Your task to perform on an android device: delete location history Image 0: 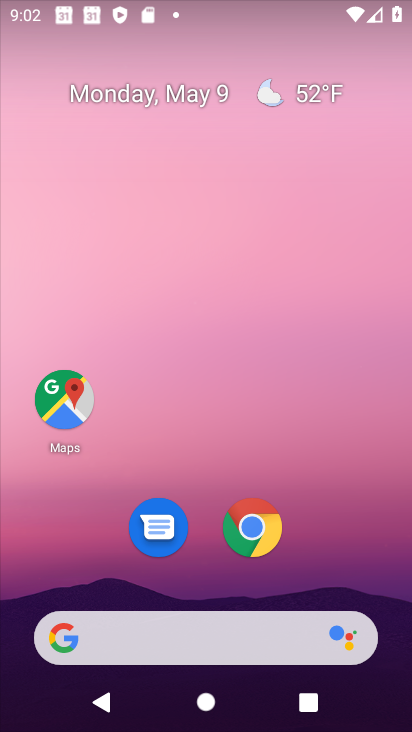
Step 0: press home button
Your task to perform on an android device: delete location history Image 1: 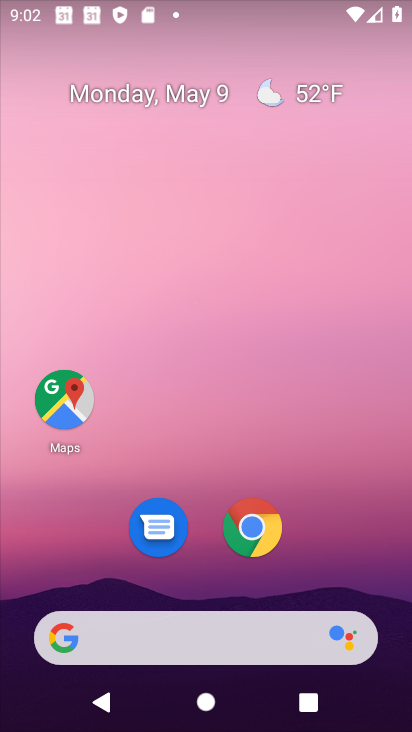
Step 1: drag from (308, 561) to (322, 228)
Your task to perform on an android device: delete location history Image 2: 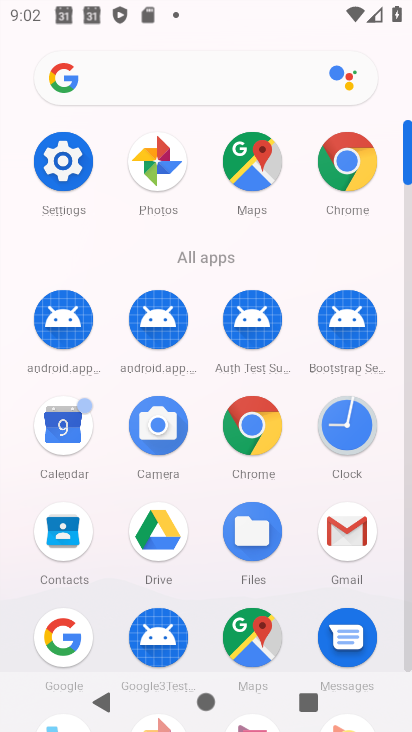
Step 2: click (75, 159)
Your task to perform on an android device: delete location history Image 3: 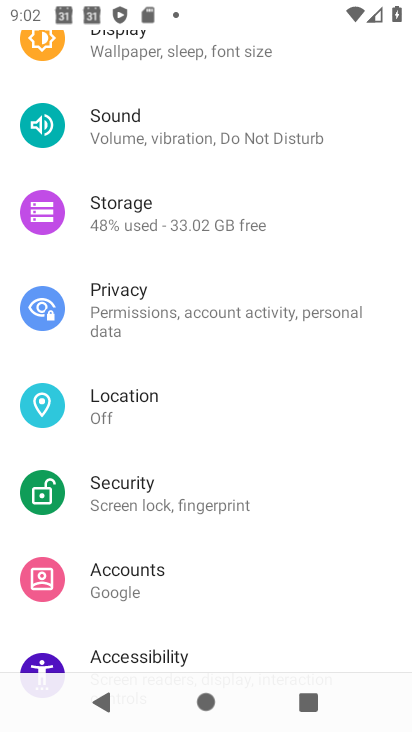
Step 3: click (80, 397)
Your task to perform on an android device: delete location history Image 4: 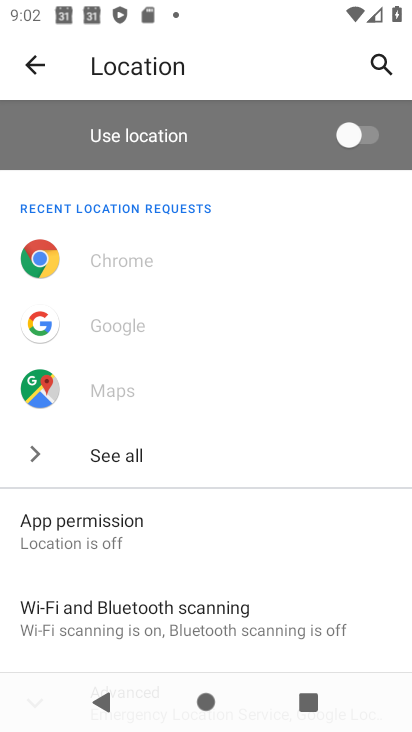
Step 4: drag from (222, 511) to (262, 286)
Your task to perform on an android device: delete location history Image 5: 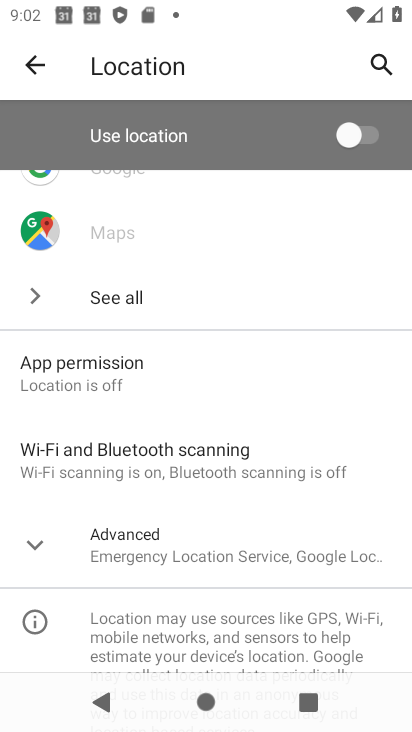
Step 5: click (192, 535)
Your task to perform on an android device: delete location history Image 6: 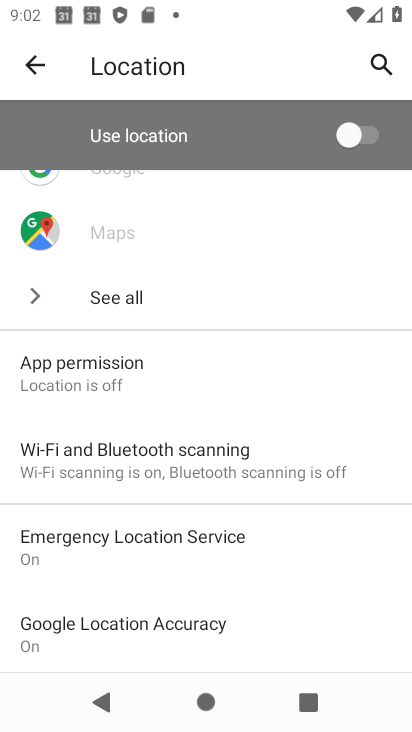
Step 6: drag from (232, 590) to (283, 274)
Your task to perform on an android device: delete location history Image 7: 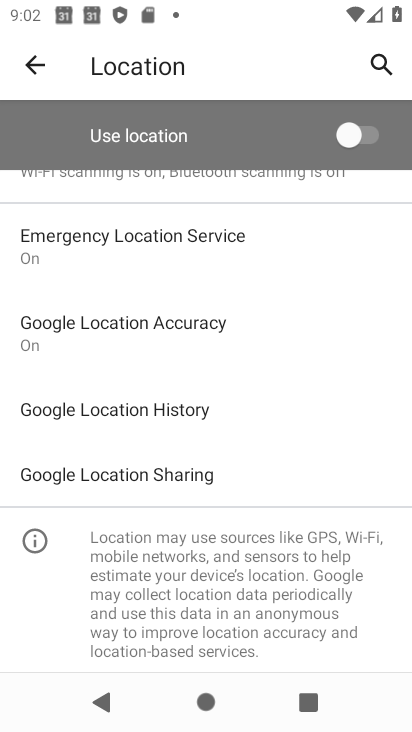
Step 7: click (197, 411)
Your task to perform on an android device: delete location history Image 8: 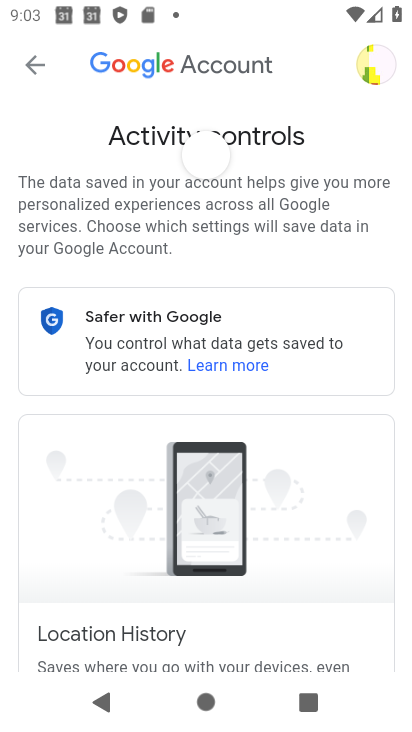
Step 8: drag from (241, 636) to (269, 255)
Your task to perform on an android device: delete location history Image 9: 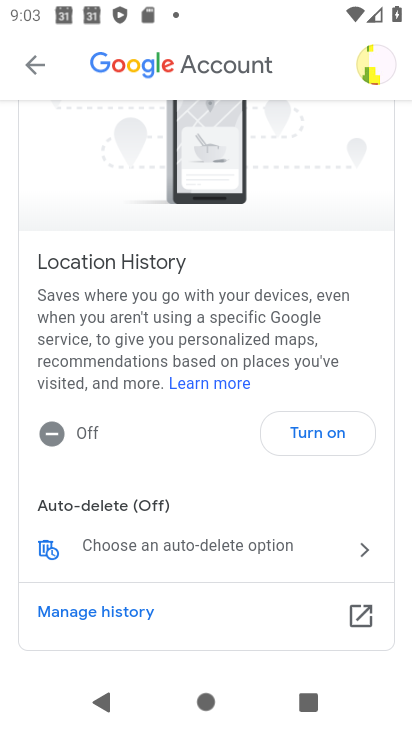
Step 9: drag from (214, 594) to (237, 275)
Your task to perform on an android device: delete location history Image 10: 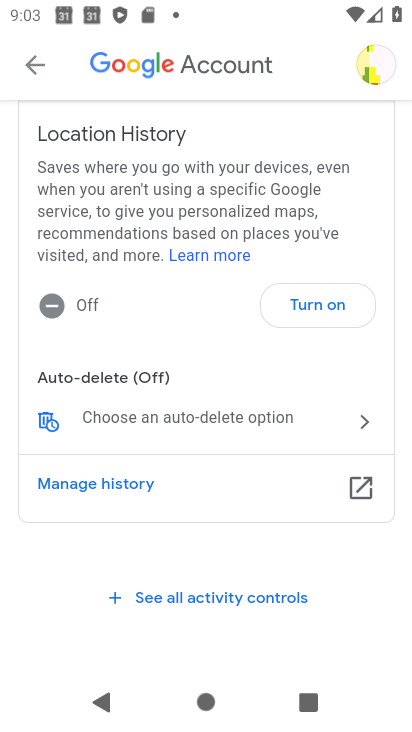
Step 10: click (115, 476)
Your task to perform on an android device: delete location history Image 11: 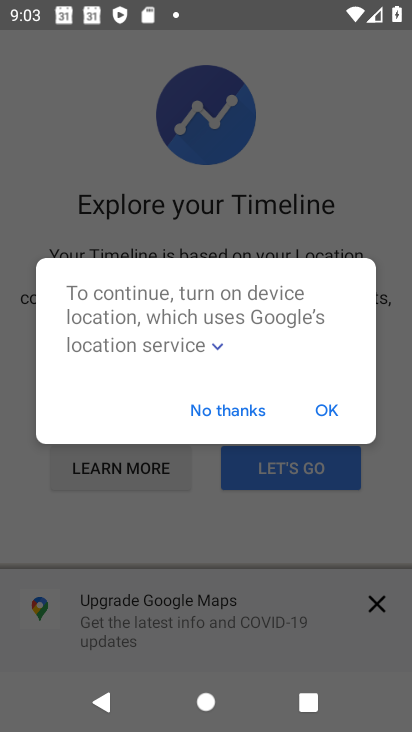
Step 11: click (380, 612)
Your task to perform on an android device: delete location history Image 12: 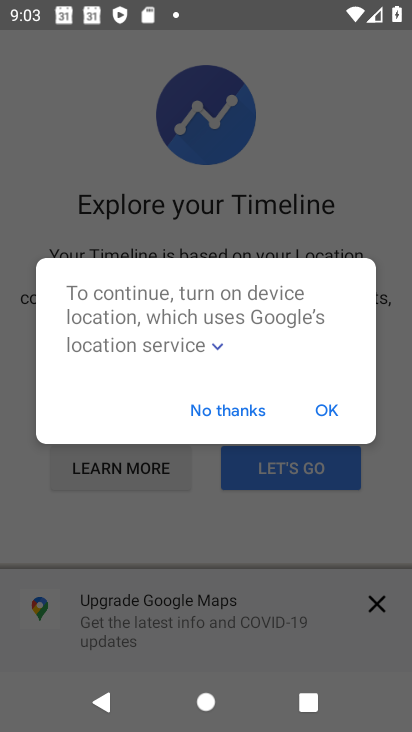
Step 12: click (231, 411)
Your task to perform on an android device: delete location history Image 13: 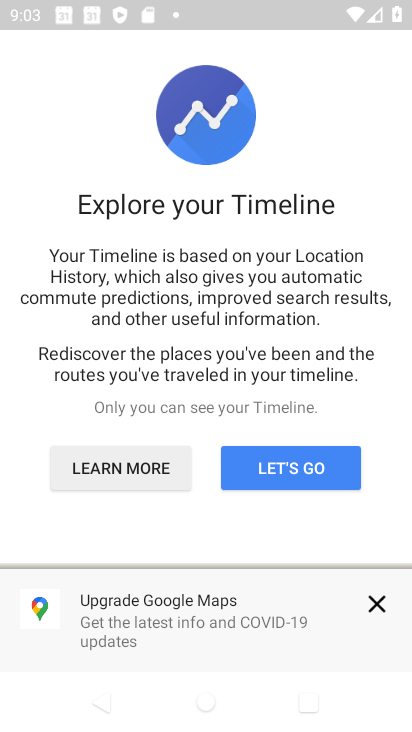
Step 13: click (380, 617)
Your task to perform on an android device: delete location history Image 14: 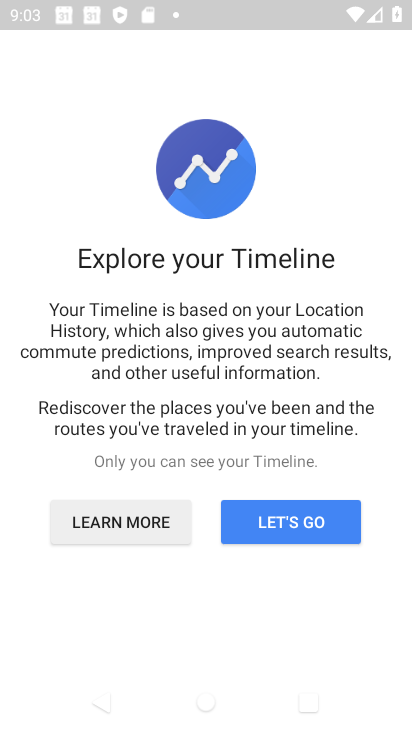
Step 14: click (297, 502)
Your task to perform on an android device: delete location history Image 15: 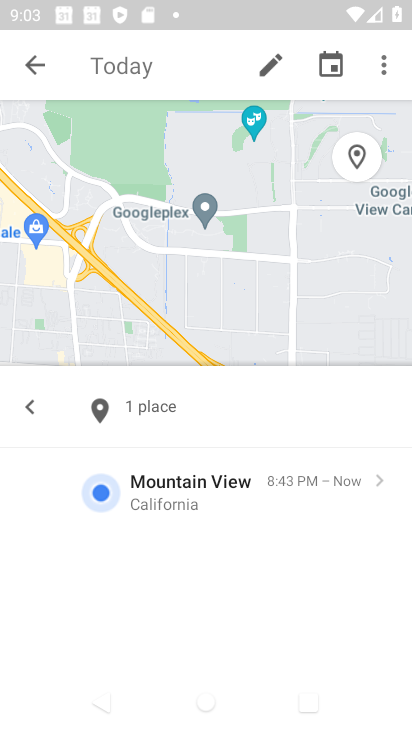
Step 15: click (390, 72)
Your task to perform on an android device: delete location history Image 16: 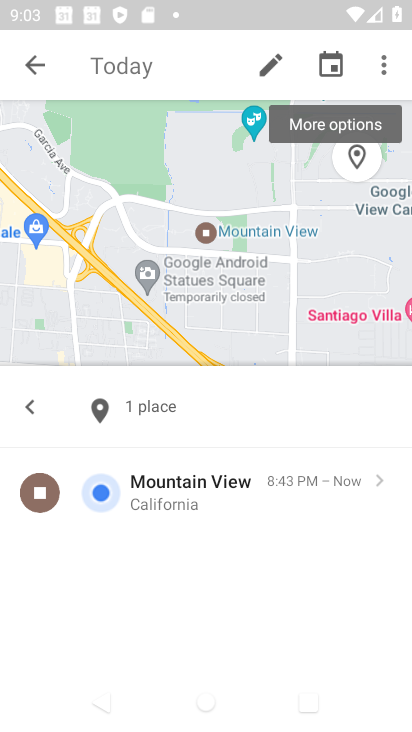
Step 16: click (390, 72)
Your task to perform on an android device: delete location history Image 17: 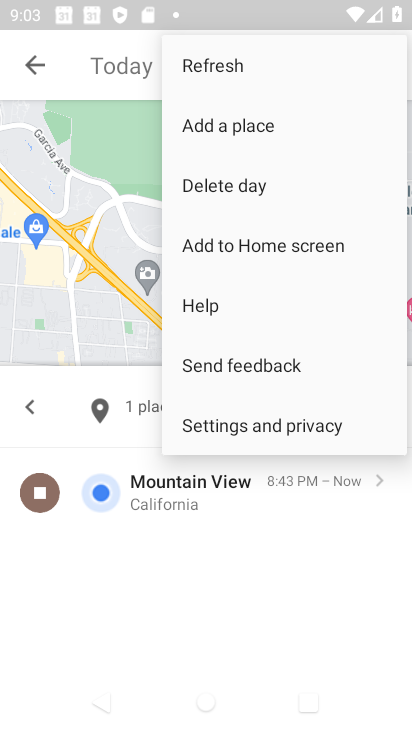
Step 17: click (278, 412)
Your task to perform on an android device: delete location history Image 18: 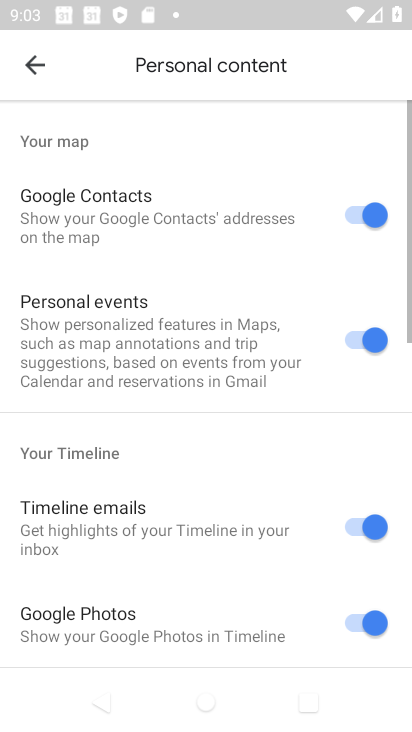
Step 18: drag from (233, 618) to (231, 124)
Your task to perform on an android device: delete location history Image 19: 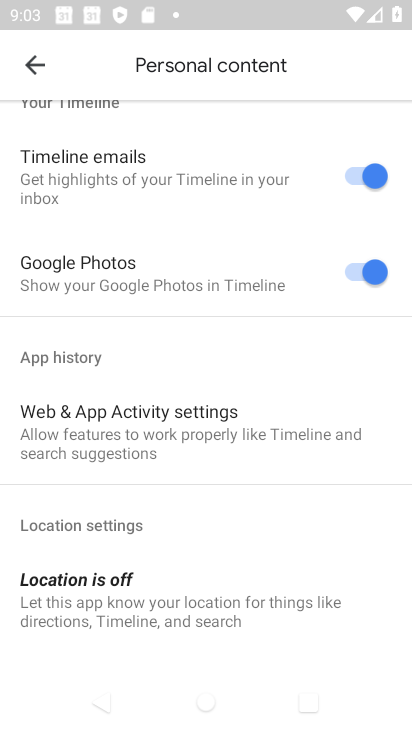
Step 19: drag from (211, 527) to (197, 118)
Your task to perform on an android device: delete location history Image 20: 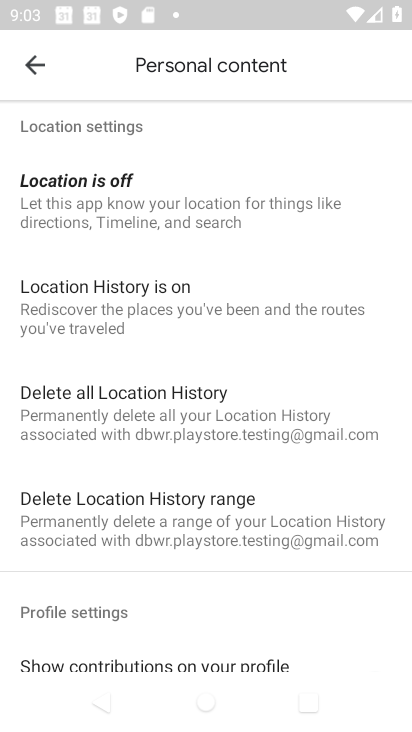
Step 20: click (185, 397)
Your task to perform on an android device: delete location history Image 21: 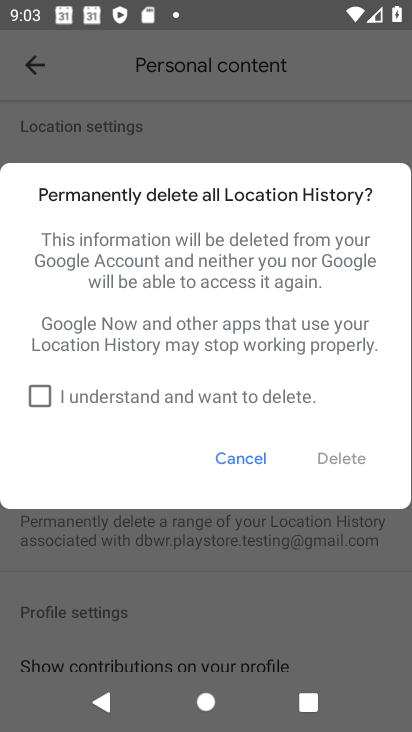
Step 21: click (113, 393)
Your task to perform on an android device: delete location history Image 22: 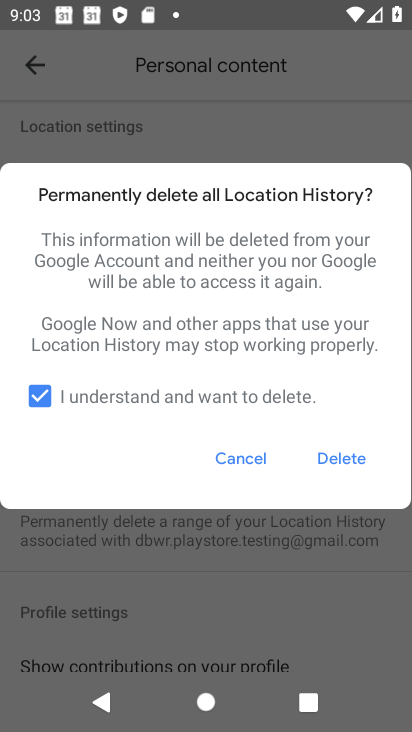
Step 22: click (351, 458)
Your task to perform on an android device: delete location history Image 23: 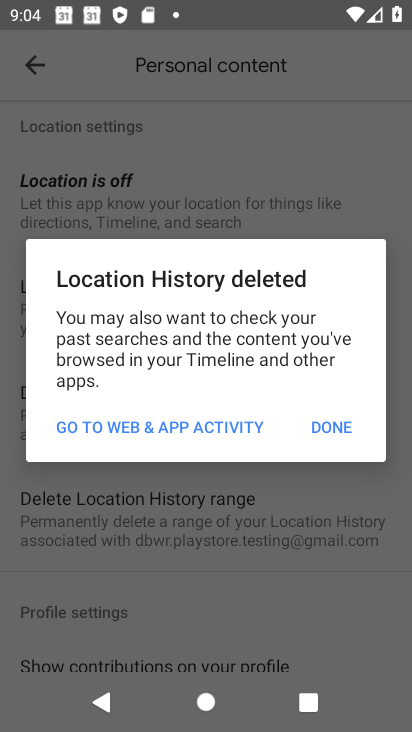
Step 23: click (343, 425)
Your task to perform on an android device: delete location history Image 24: 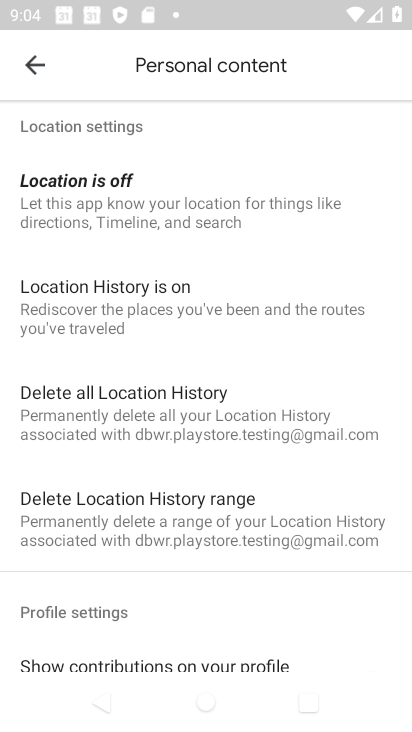
Step 24: task complete